Your task to perform on an android device: Search for "lg ultragear" on bestbuy.com, select the first entry, and add it to the cart. Image 0: 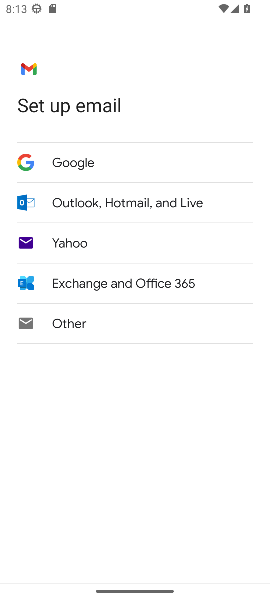
Step 0: press home button
Your task to perform on an android device: Search for "lg ultragear" on bestbuy.com, select the first entry, and add it to the cart. Image 1: 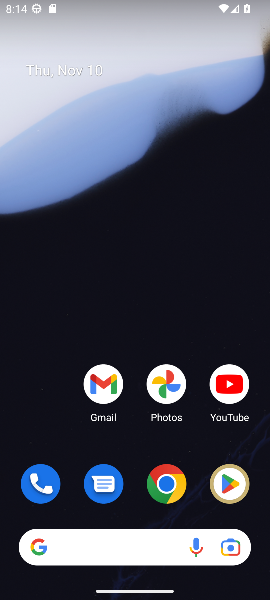
Step 1: click (173, 487)
Your task to perform on an android device: Search for "lg ultragear" on bestbuy.com, select the first entry, and add it to the cart. Image 2: 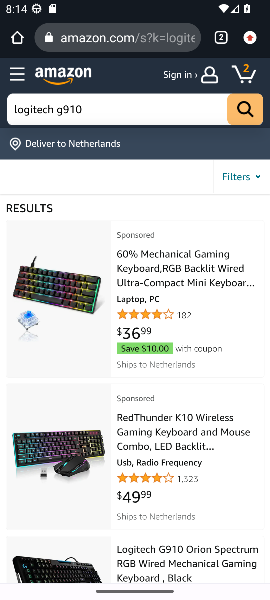
Step 2: click (124, 44)
Your task to perform on an android device: Search for "lg ultragear" on bestbuy.com, select the first entry, and add it to the cart. Image 3: 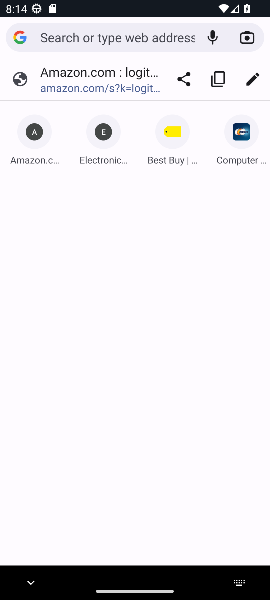
Step 3: click (162, 148)
Your task to perform on an android device: Search for "lg ultragear" on bestbuy.com, select the first entry, and add it to the cart. Image 4: 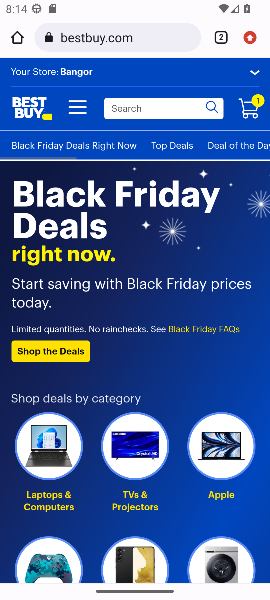
Step 4: click (113, 108)
Your task to perform on an android device: Search for "lg ultragear" on bestbuy.com, select the first entry, and add it to the cart. Image 5: 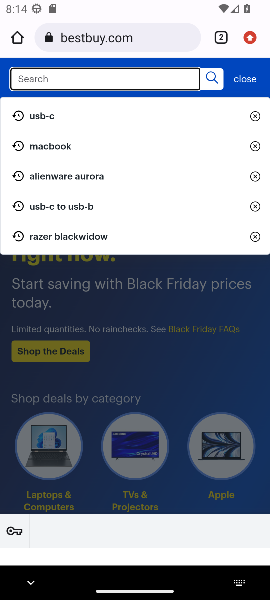
Step 5: type "lg ultragear"
Your task to perform on an android device: Search for "lg ultragear" on bestbuy.com, select the first entry, and add it to the cart. Image 6: 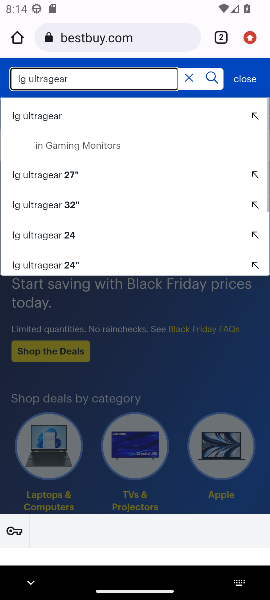
Step 6: click (34, 118)
Your task to perform on an android device: Search for "lg ultragear" on bestbuy.com, select the first entry, and add it to the cart. Image 7: 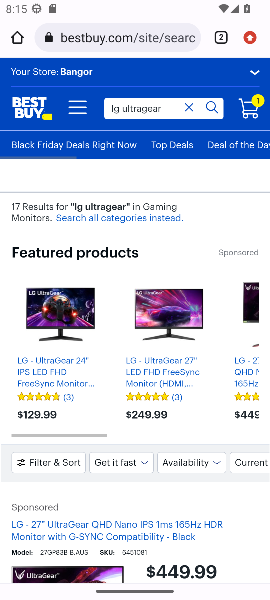
Step 7: drag from (105, 334) to (85, 168)
Your task to perform on an android device: Search for "lg ultragear" on bestbuy.com, select the first entry, and add it to the cart. Image 8: 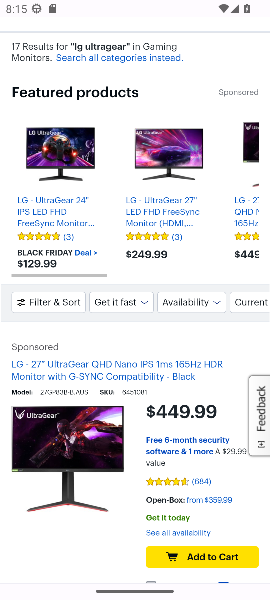
Step 8: drag from (103, 495) to (71, 335)
Your task to perform on an android device: Search for "lg ultragear" on bestbuy.com, select the first entry, and add it to the cart. Image 9: 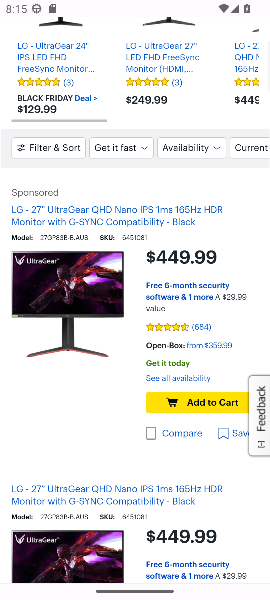
Step 9: click (176, 400)
Your task to perform on an android device: Search for "lg ultragear" on bestbuy.com, select the first entry, and add it to the cart. Image 10: 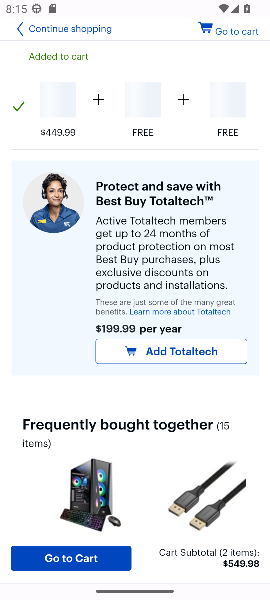
Step 10: task complete